Your task to perform on an android device: Open ESPN.com Image 0: 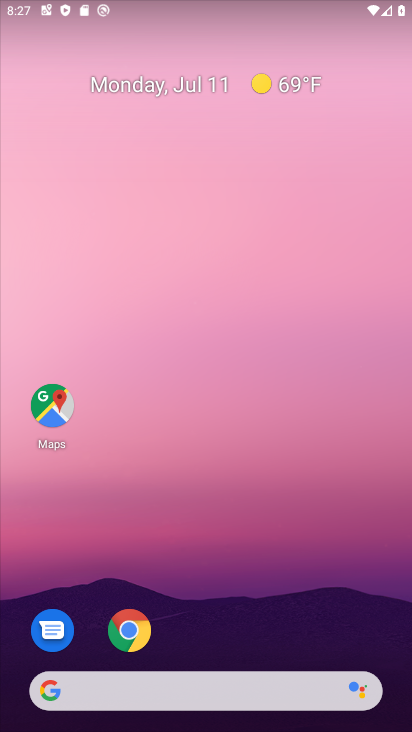
Step 0: click (119, 643)
Your task to perform on an android device: Open ESPN.com Image 1: 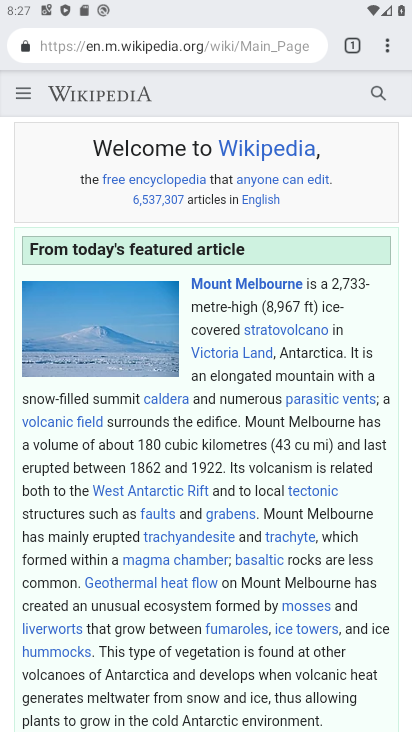
Step 1: click (203, 42)
Your task to perform on an android device: Open ESPN.com Image 2: 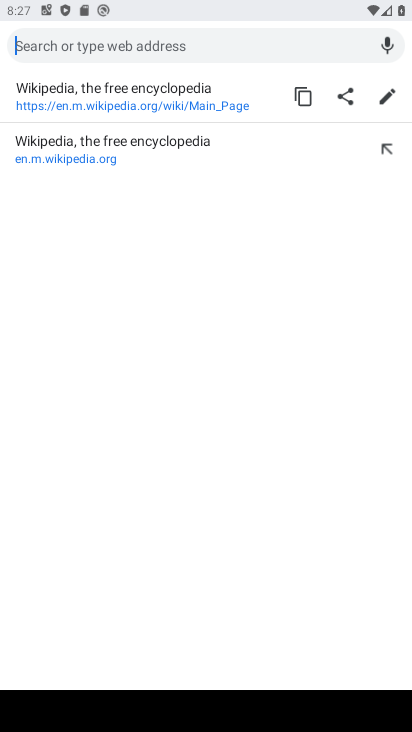
Step 2: type ""
Your task to perform on an android device: Open ESPN.com Image 3: 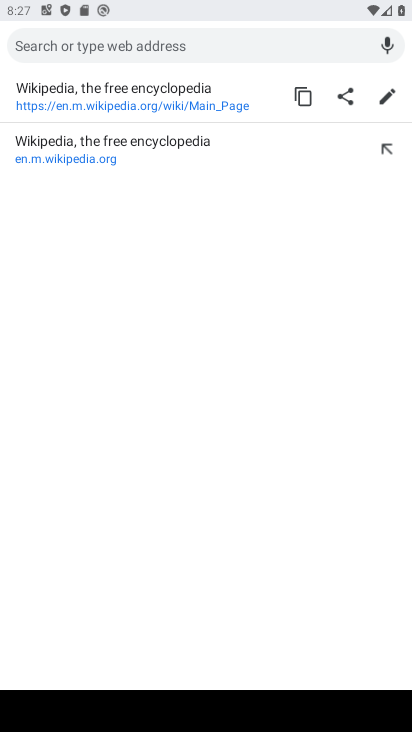
Step 3: type "espn.com"
Your task to perform on an android device: Open ESPN.com Image 4: 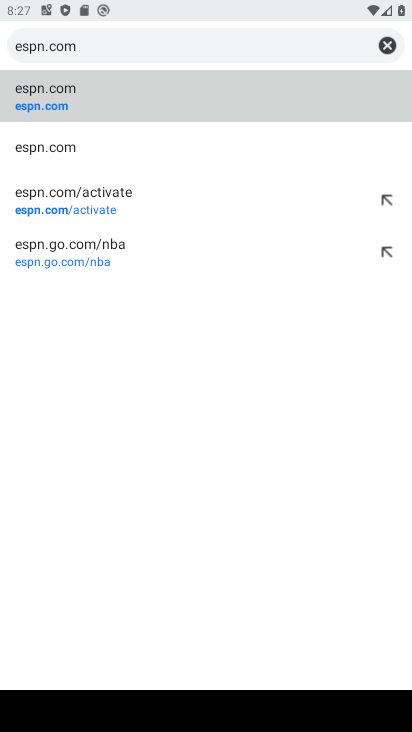
Step 4: click (85, 104)
Your task to perform on an android device: Open ESPN.com Image 5: 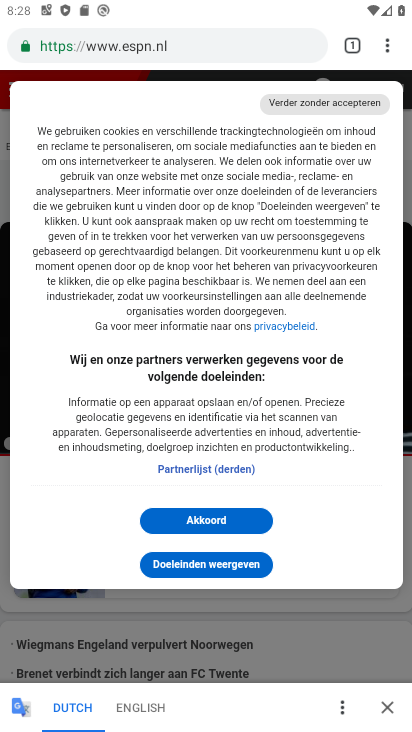
Step 5: task complete